Your task to perform on an android device: Go to sound settings Image 0: 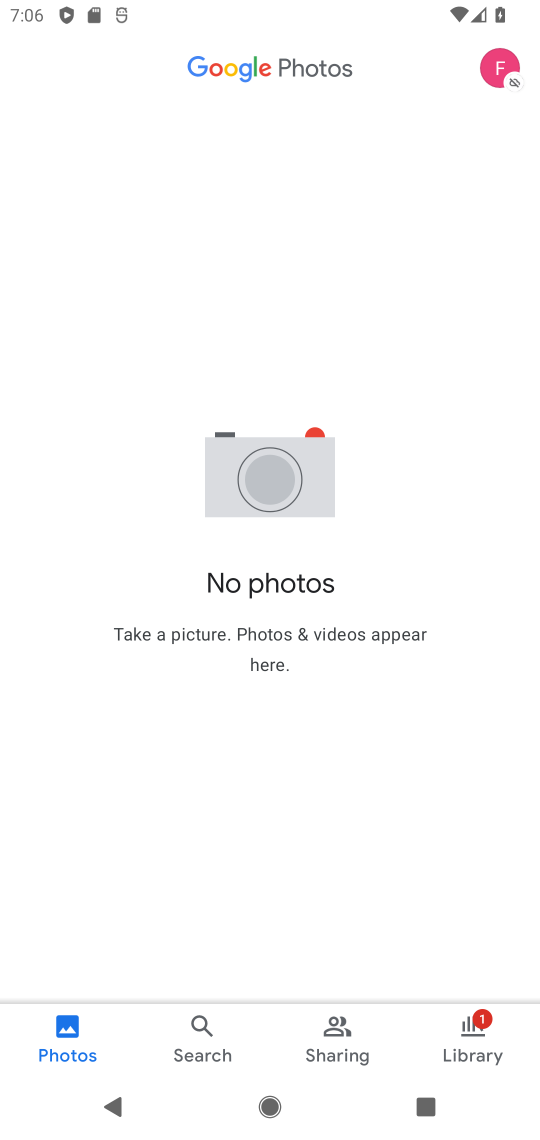
Step 0: press home button
Your task to perform on an android device: Go to sound settings Image 1: 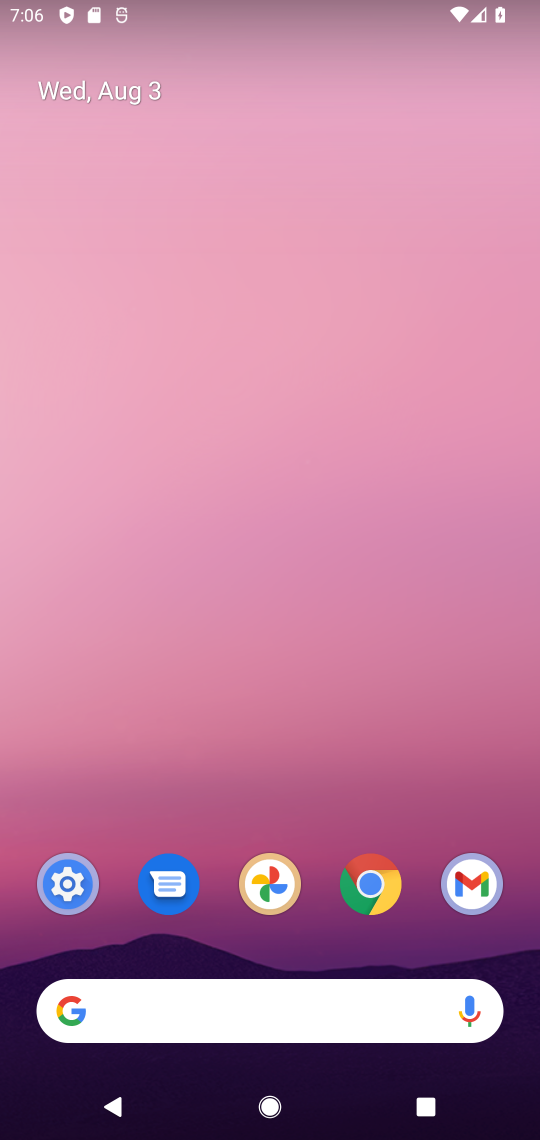
Step 1: drag from (35, 550) to (68, 455)
Your task to perform on an android device: Go to sound settings Image 2: 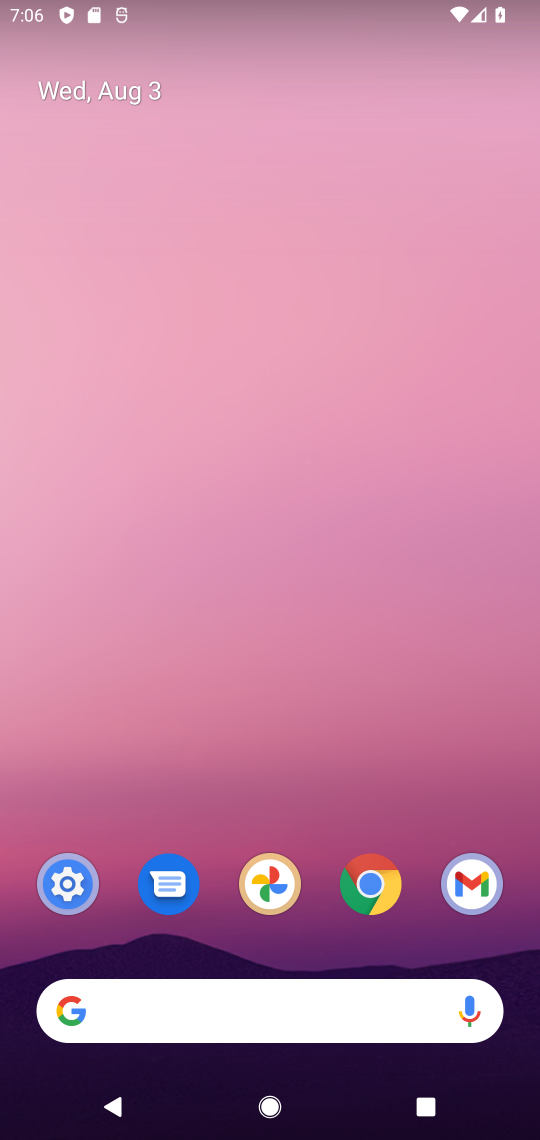
Step 2: drag from (328, 682) to (324, 370)
Your task to perform on an android device: Go to sound settings Image 3: 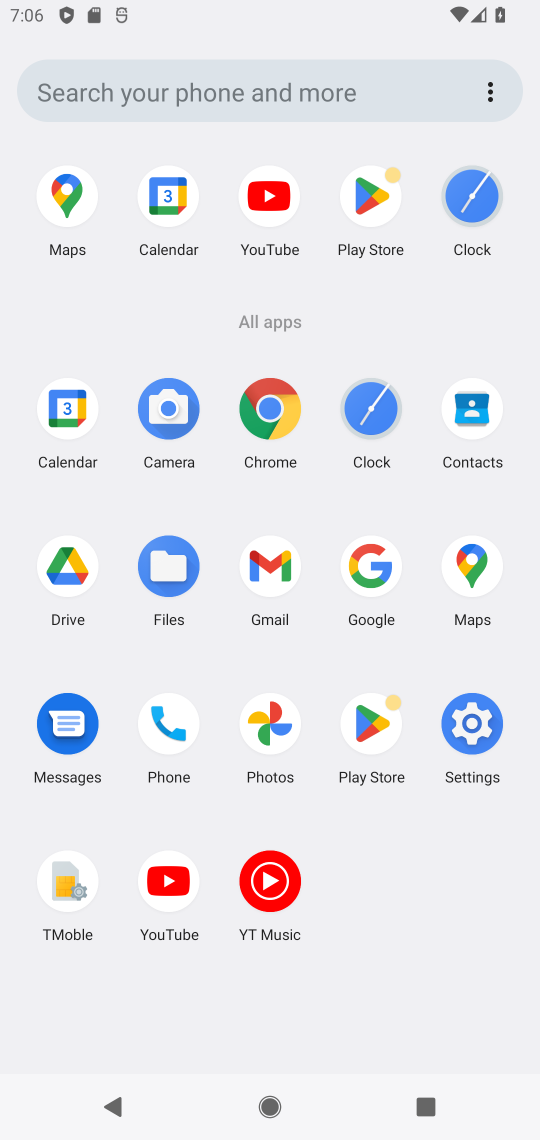
Step 3: click (483, 735)
Your task to perform on an android device: Go to sound settings Image 4: 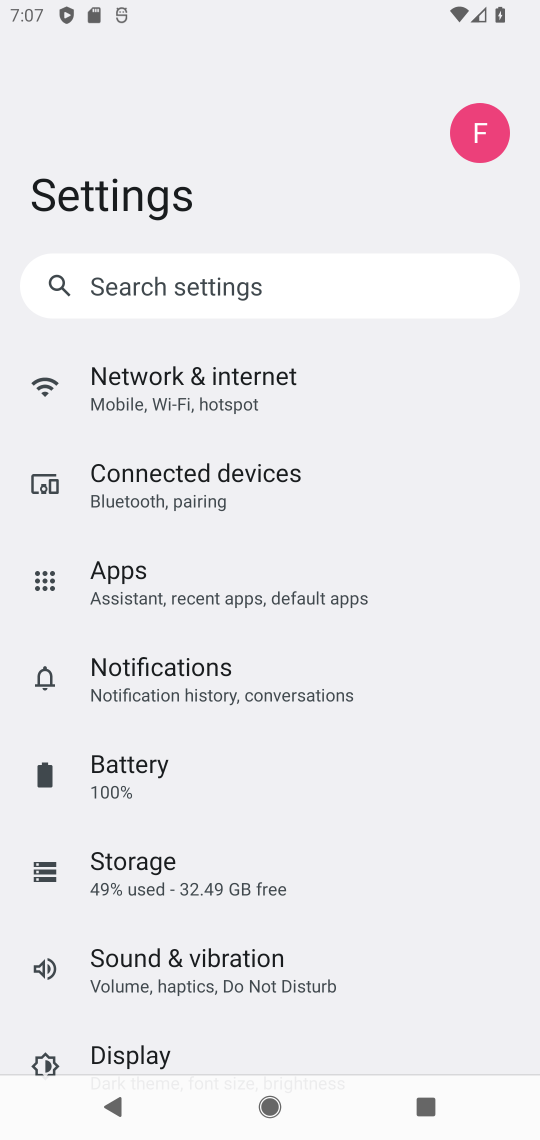
Step 4: click (183, 970)
Your task to perform on an android device: Go to sound settings Image 5: 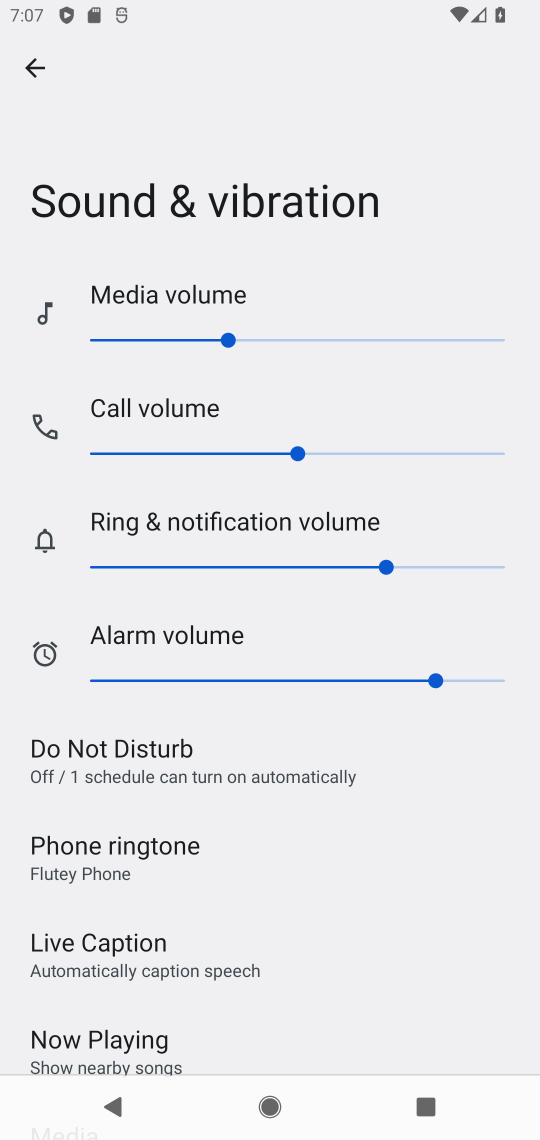
Step 5: task complete